Your task to perform on an android device: toggle javascript in the chrome app Image 0: 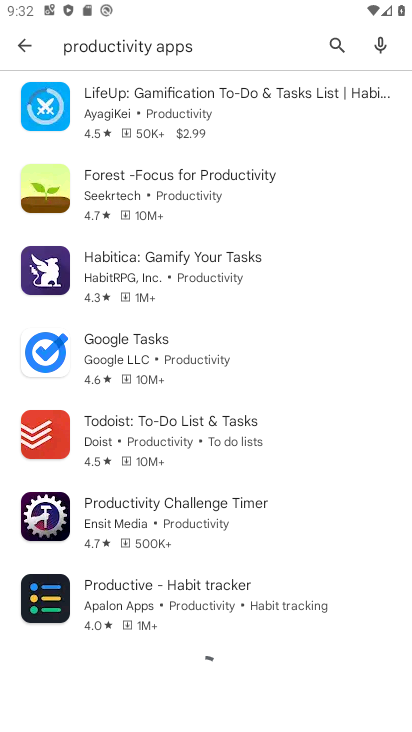
Step 0: press home button
Your task to perform on an android device: toggle javascript in the chrome app Image 1: 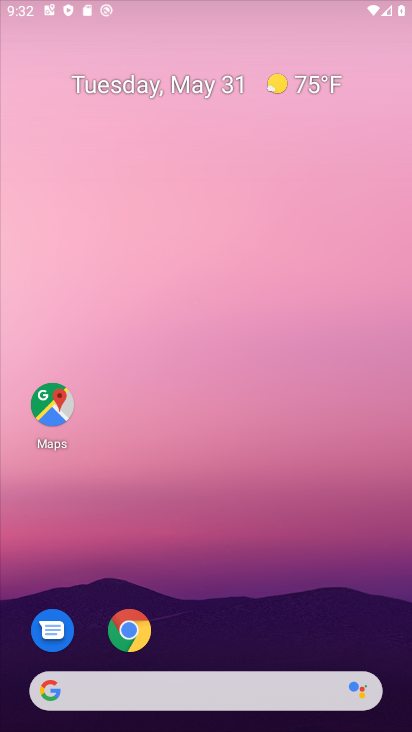
Step 1: drag from (185, 564) to (243, 205)
Your task to perform on an android device: toggle javascript in the chrome app Image 2: 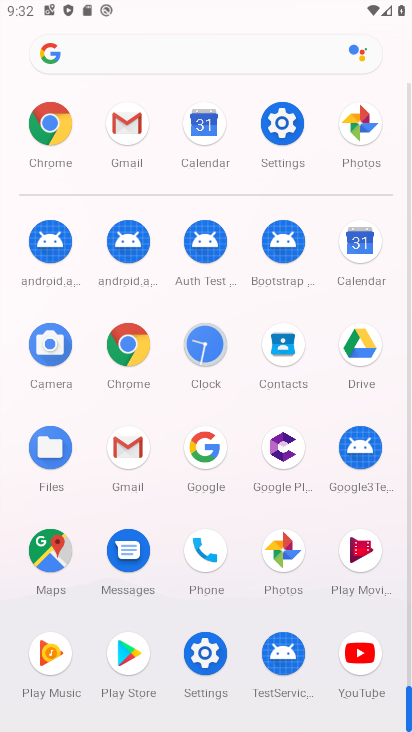
Step 2: click (142, 361)
Your task to perform on an android device: toggle javascript in the chrome app Image 3: 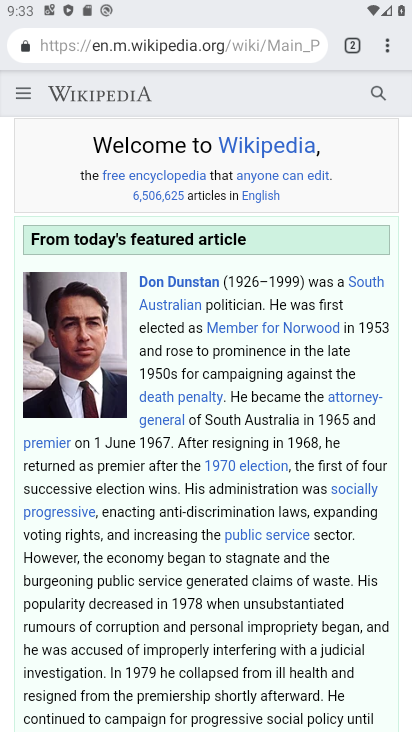
Step 3: click (390, 52)
Your task to perform on an android device: toggle javascript in the chrome app Image 4: 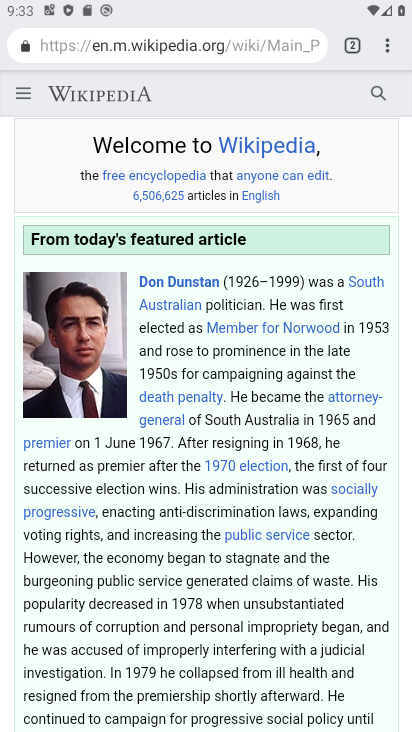
Step 4: click (390, 53)
Your task to perform on an android device: toggle javascript in the chrome app Image 5: 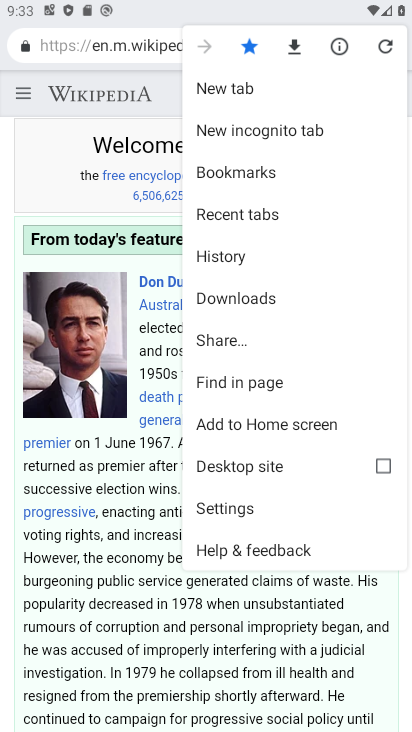
Step 5: drag from (276, 370) to (330, 91)
Your task to perform on an android device: toggle javascript in the chrome app Image 6: 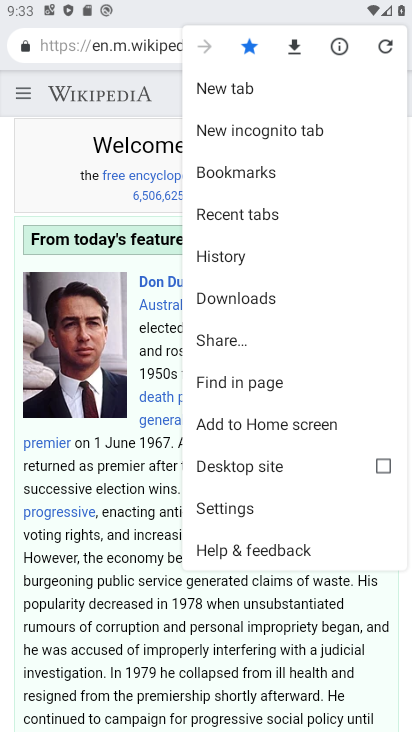
Step 6: click (234, 507)
Your task to perform on an android device: toggle javascript in the chrome app Image 7: 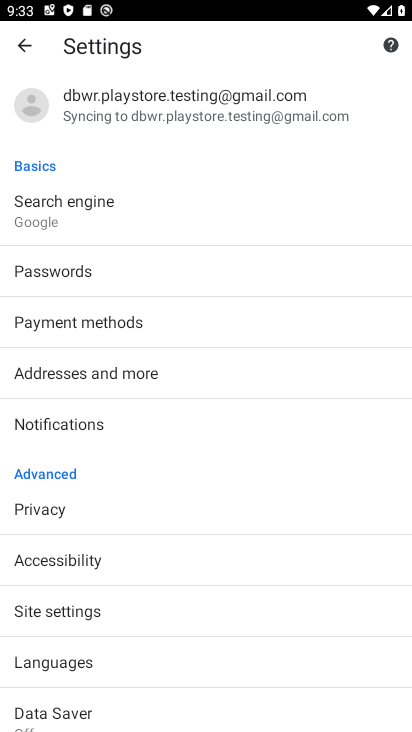
Step 7: drag from (123, 526) to (147, 318)
Your task to perform on an android device: toggle javascript in the chrome app Image 8: 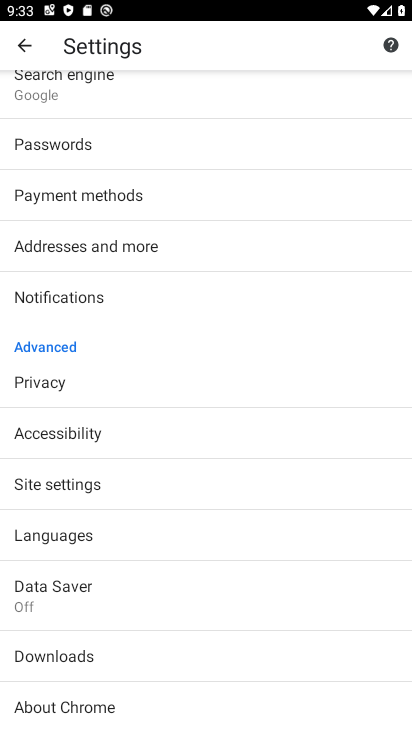
Step 8: click (102, 483)
Your task to perform on an android device: toggle javascript in the chrome app Image 9: 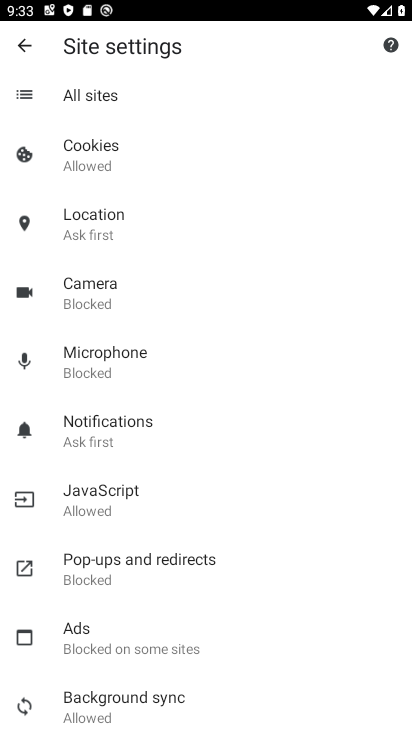
Step 9: click (139, 511)
Your task to perform on an android device: toggle javascript in the chrome app Image 10: 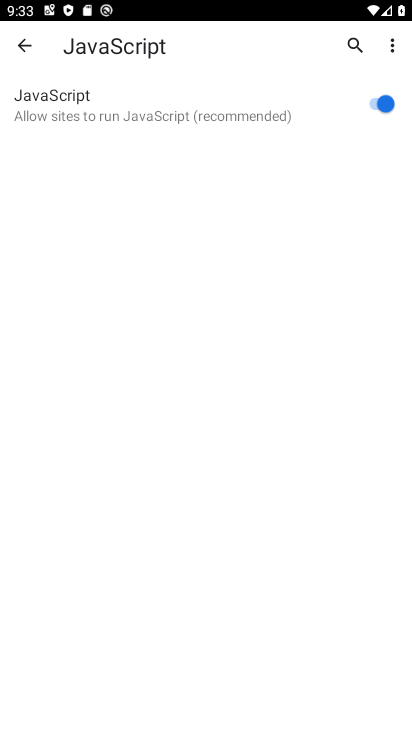
Step 10: click (364, 100)
Your task to perform on an android device: toggle javascript in the chrome app Image 11: 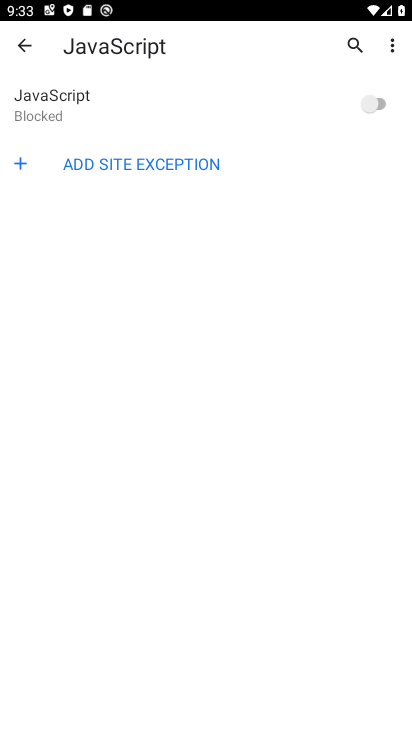
Step 11: task complete